Your task to perform on an android device: turn on sleep mode Image 0: 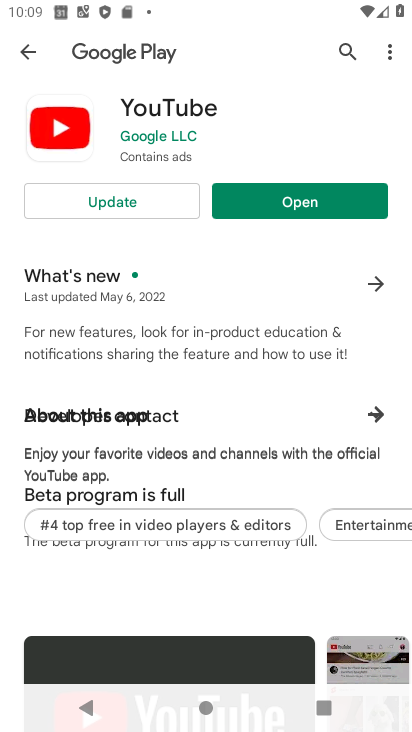
Step 0: press home button
Your task to perform on an android device: turn on sleep mode Image 1: 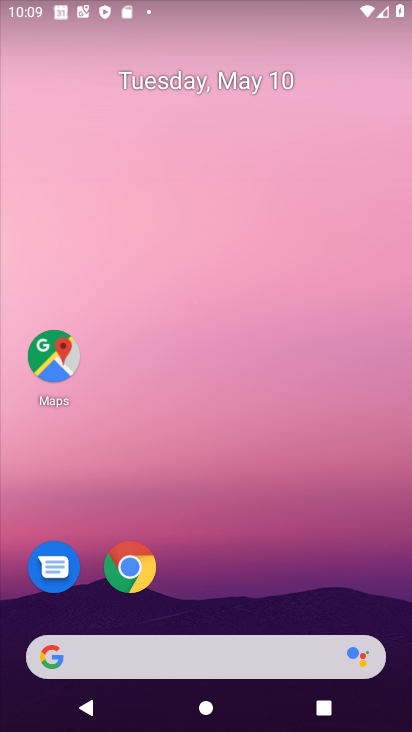
Step 1: drag from (0, 0) to (279, 124)
Your task to perform on an android device: turn on sleep mode Image 2: 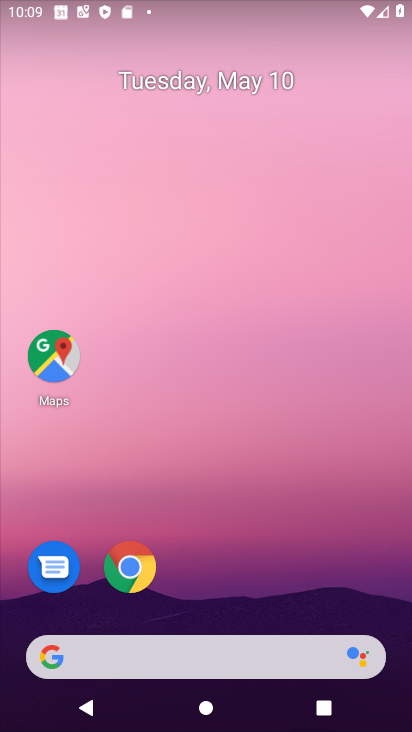
Step 2: drag from (16, 579) to (320, 150)
Your task to perform on an android device: turn on sleep mode Image 3: 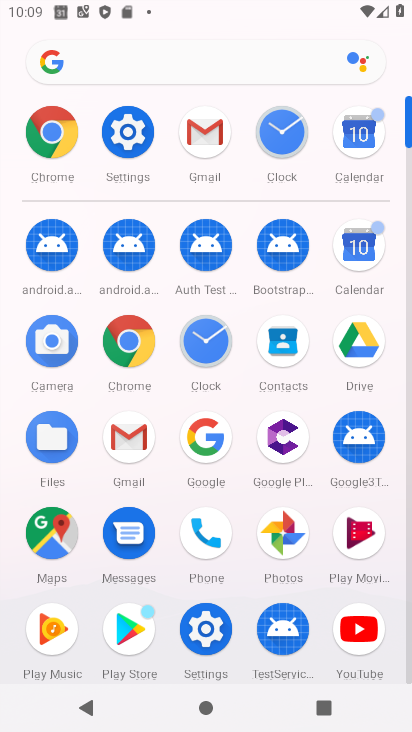
Step 3: click (125, 116)
Your task to perform on an android device: turn on sleep mode Image 4: 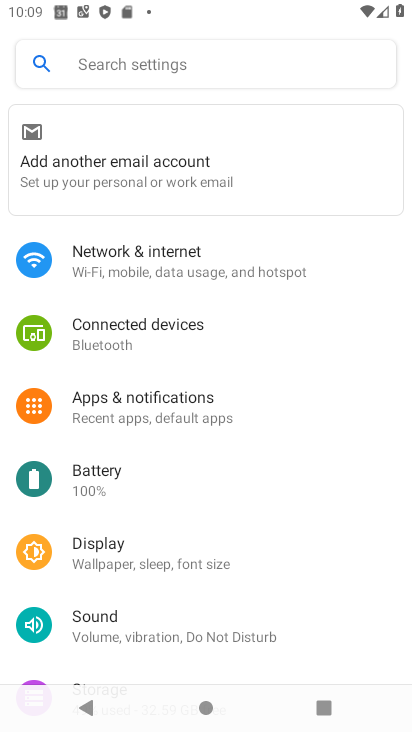
Step 4: task complete